Your task to perform on an android device: What's on my calendar tomorrow? Image 0: 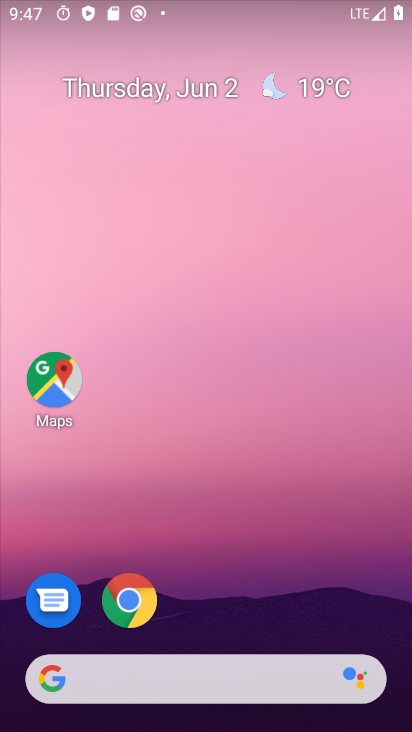
Step 0: drag from (247, 586) to (251, 182)
Your task to perform on an android device: What's on my calendar tomorrow? Image 1: 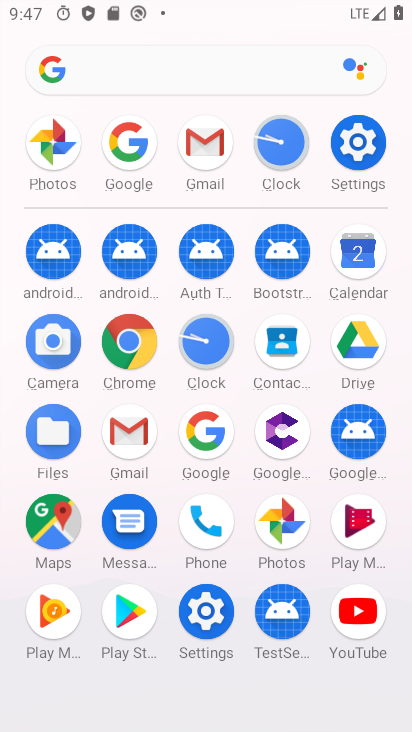
Step 1: click (379, 283)
Your task to perform on an android device: What's on my calendar tomorrow? Image 2: 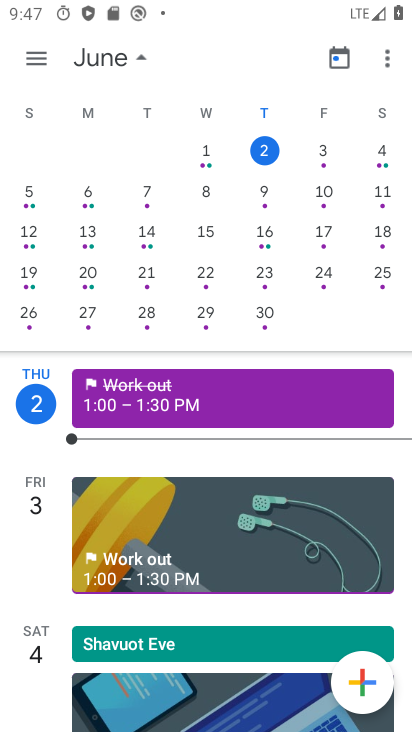
Step 2: click (329, 154)
Your task to perform on an android device: What's on my calendar tomorrow? Image 3: 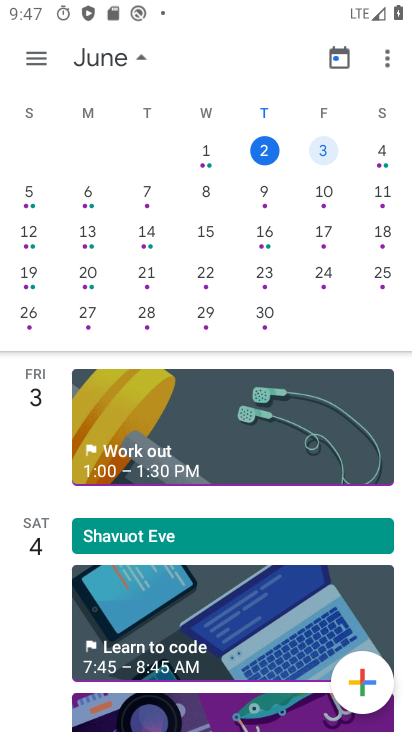
Step 3: task complete